Your task to perform on an android device: What's the weather today? Image 0: 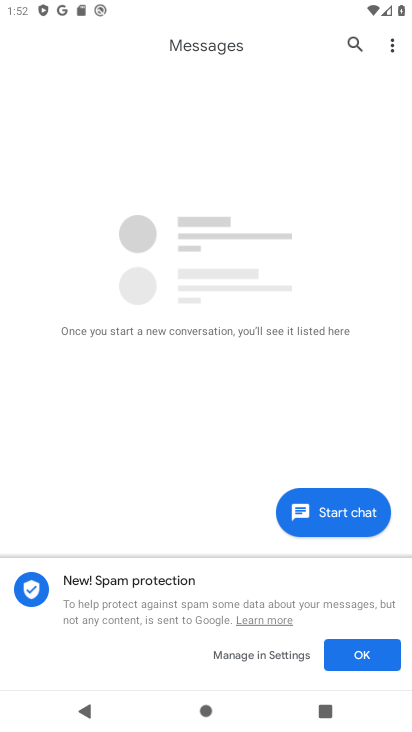
Step 0: press home button
Your task to perform on an android device: What's the weather today? Image 1: 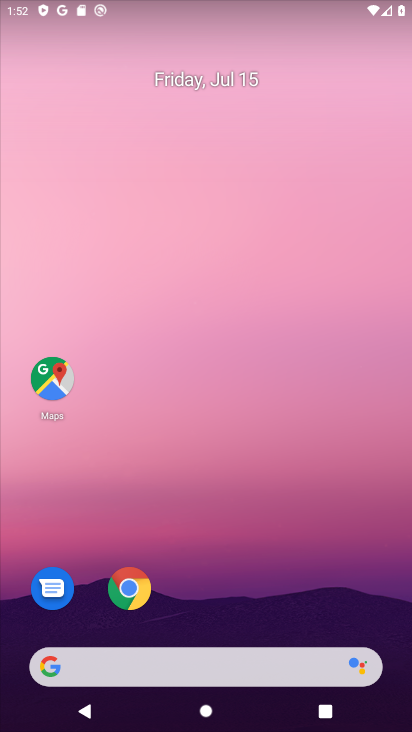
Step 1: click (207, 682)
Your task to perform on an android device: What's the weather today? Image 2: 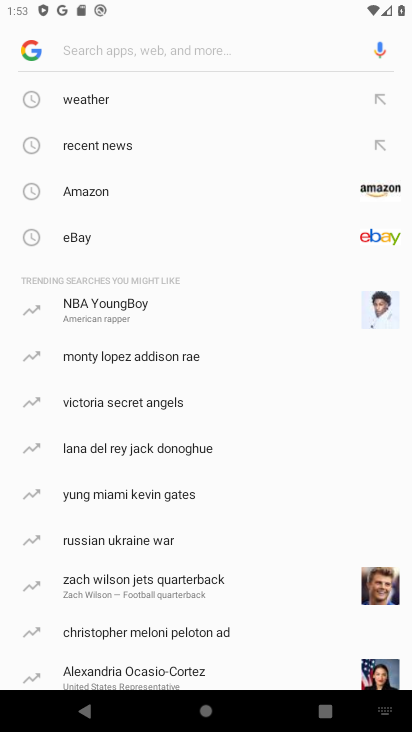
Step 2: click (73, 102)
Your task to perform on an android device: What's the weather today? Image 3: 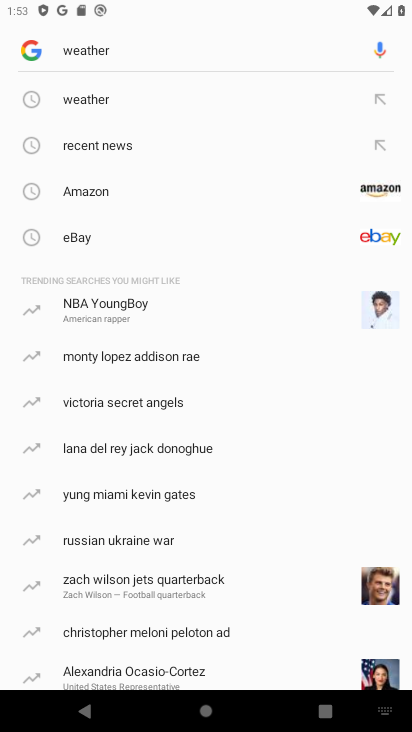
Step 3: task complete